Your task to perform on an android device: Open Maps and search for coffee Image 0: 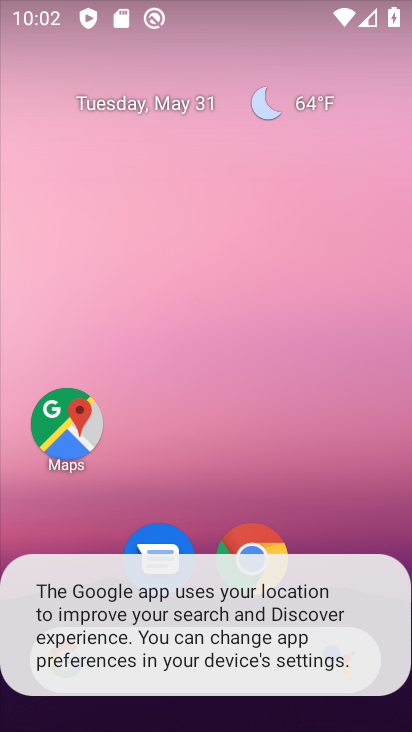
Step 0: click (76, 436)
Your task to perform on an android device: Open Maps and search for coffee Image 1: 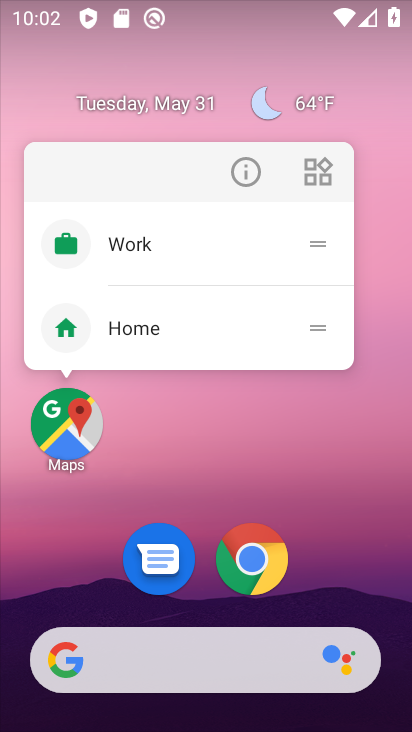
Step 1: click (64, 439)
Your task to perform on an android device: Open Maps and search for coffee Image 2: 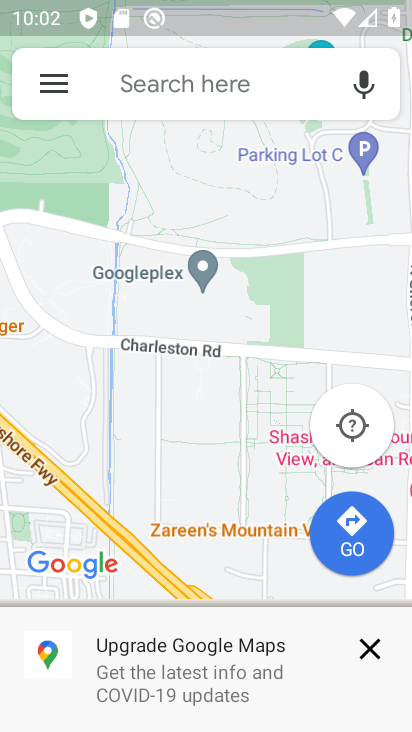
Step 2: click (210, 94)
Your task to perform on an android device: Open Maps and search for coffee Image 3: 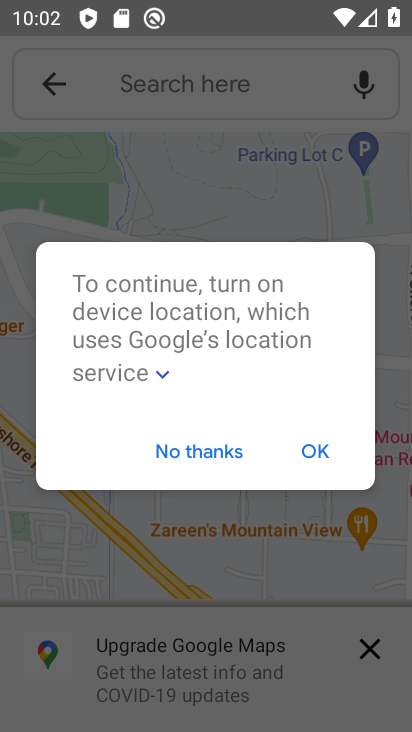
Step 3: click (309, 481)
Your task to perform on an android device: Open Maps and search for coffee Image 4: 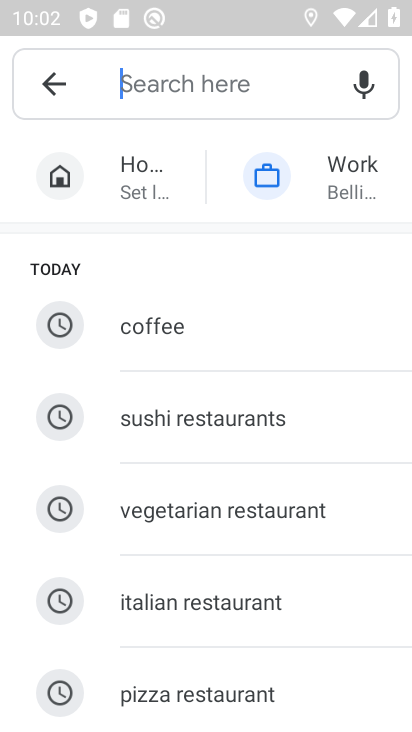
Step 4: type "Coffee "
Your task to perform on an android device: Open Maps and search for coffee Image 5: 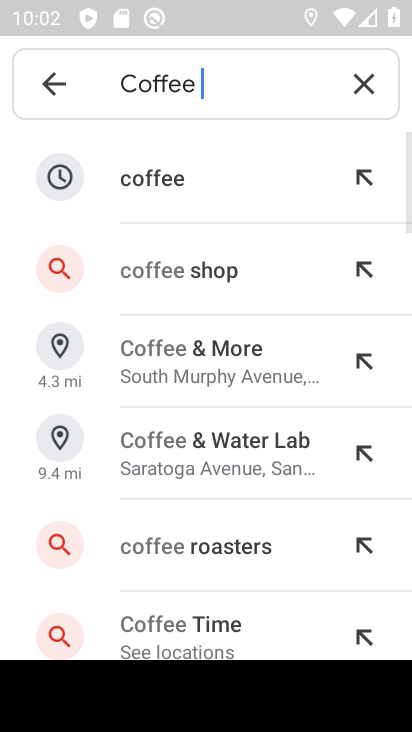
Step 5: click (203, 177)
Your task to perform on an android device: Open Maps and search for coffee Image 6: 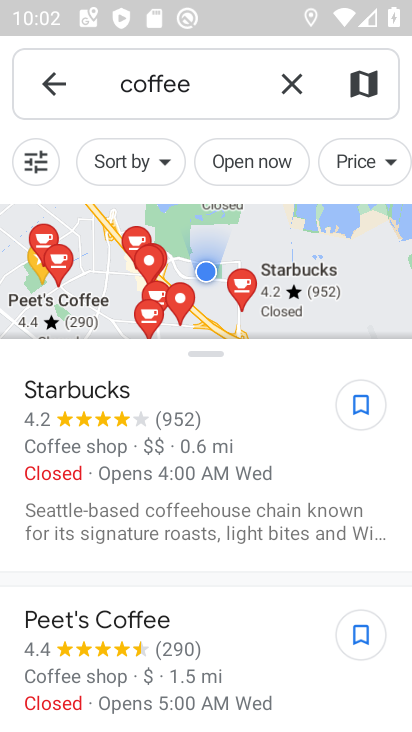
Step 6: task complete